Your task to perform on an android device: turn on airplane mode Image 0: 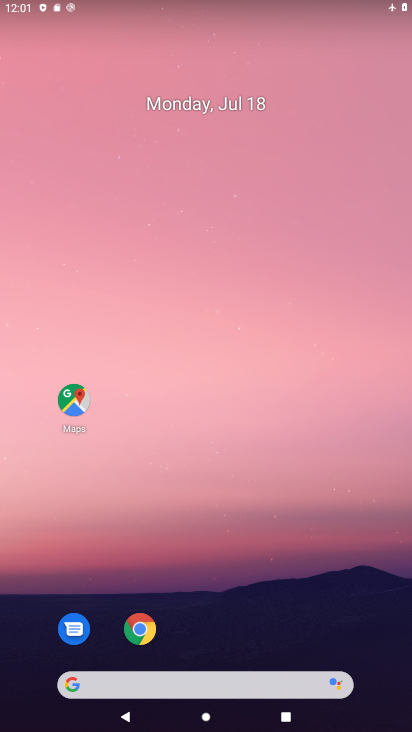
Step 0: press home button
Your task to perform on an android device: turn on airplane mode Image 1: 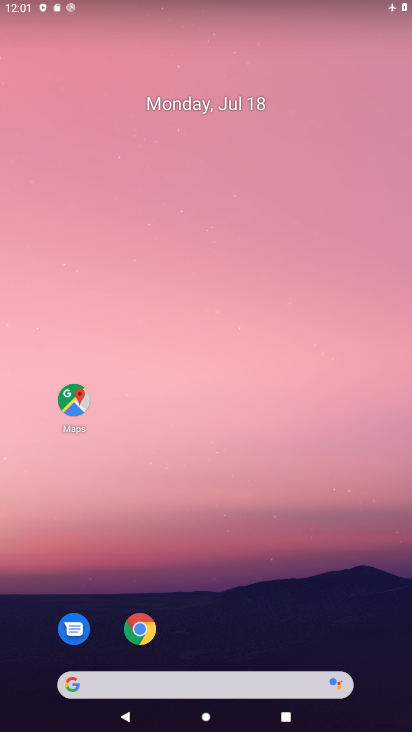
Step 1: task complete